Your task to perform on an android device: Open Wikipedia Image 0: 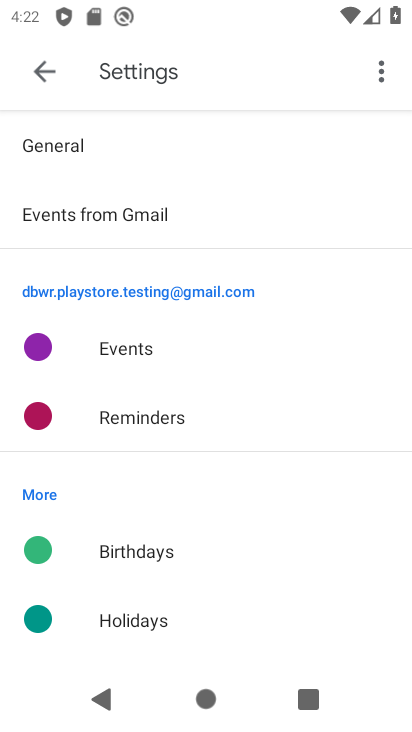
Step 0: press home button
Your task to perform on an android device: Open Wikipedia Image 1: 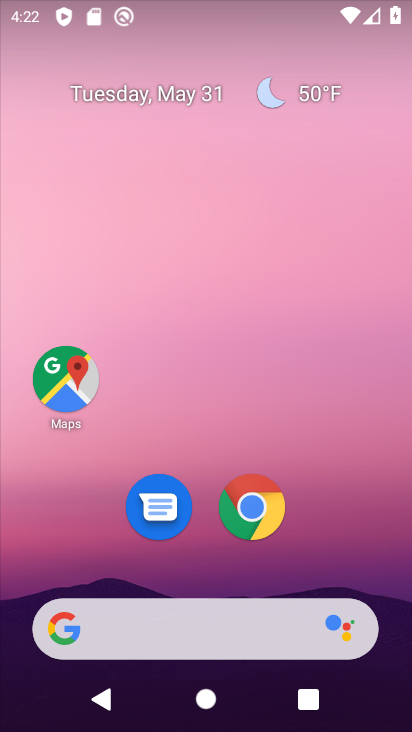
Step 1: click (249, 511)
Your task to perform on an android device: Open Wikipedia Image 2: 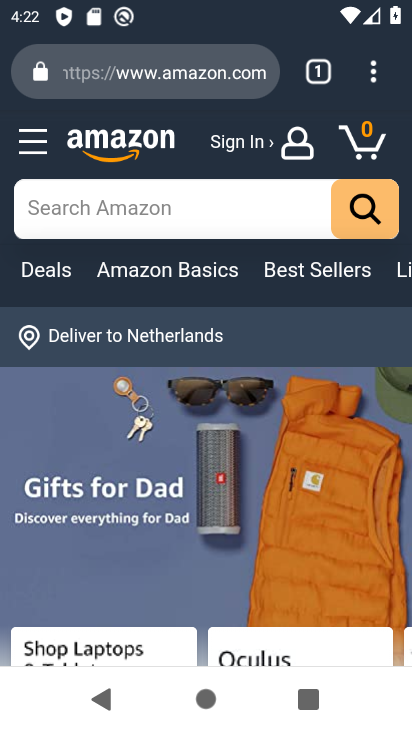
Step 2: click (379, 73)
Your task to perform on an android device: Open Wikipedia Image 3: 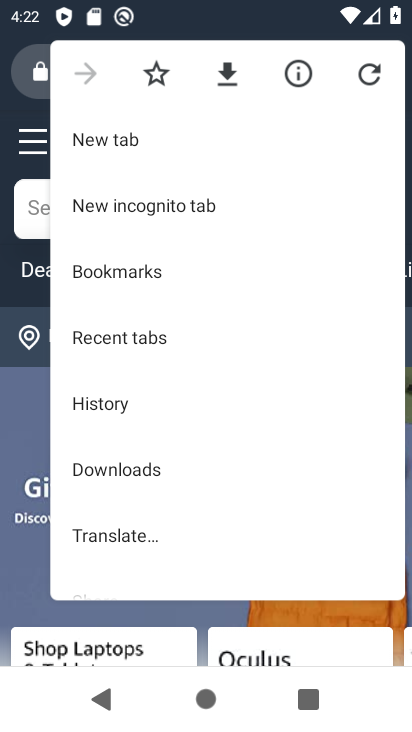
Step 3: click (263, 133)
Your task to perform on an android device: Open Wikipedia Image 4: 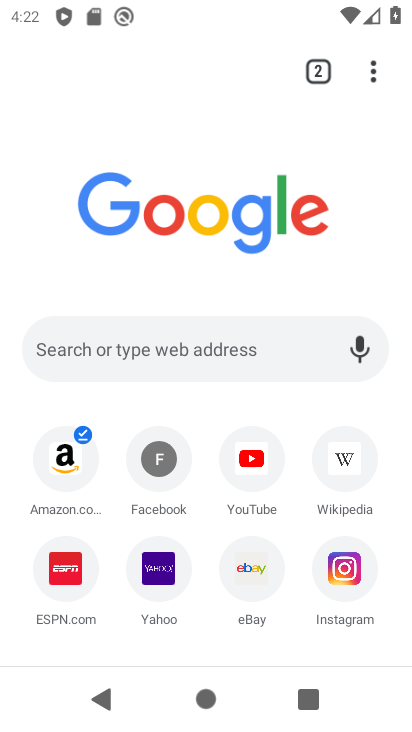
Step 4: click (339, 458)
Your task to perform on an android device: Open Wikipedia Image 5: 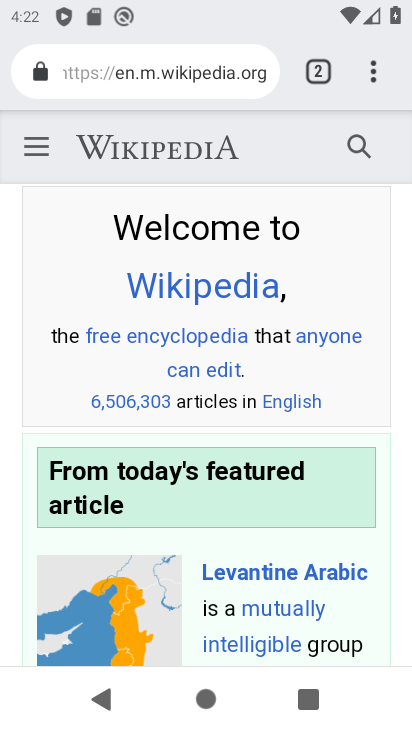
Step 5: task complete